Your task to perform on an android device: What is the capital of India? Image 0: 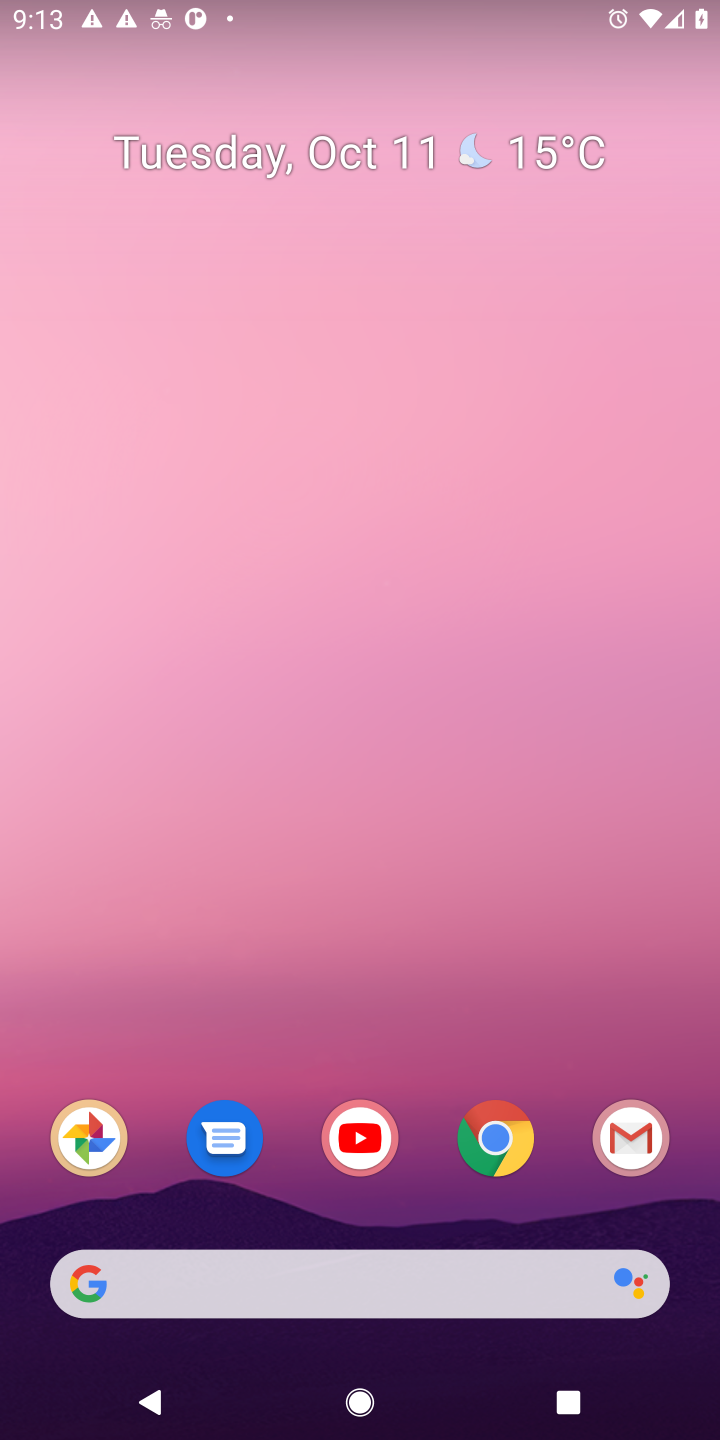
Step 0: click (388, 1287)
Your task to perform on an android device: What is the capital of India? Image 1: 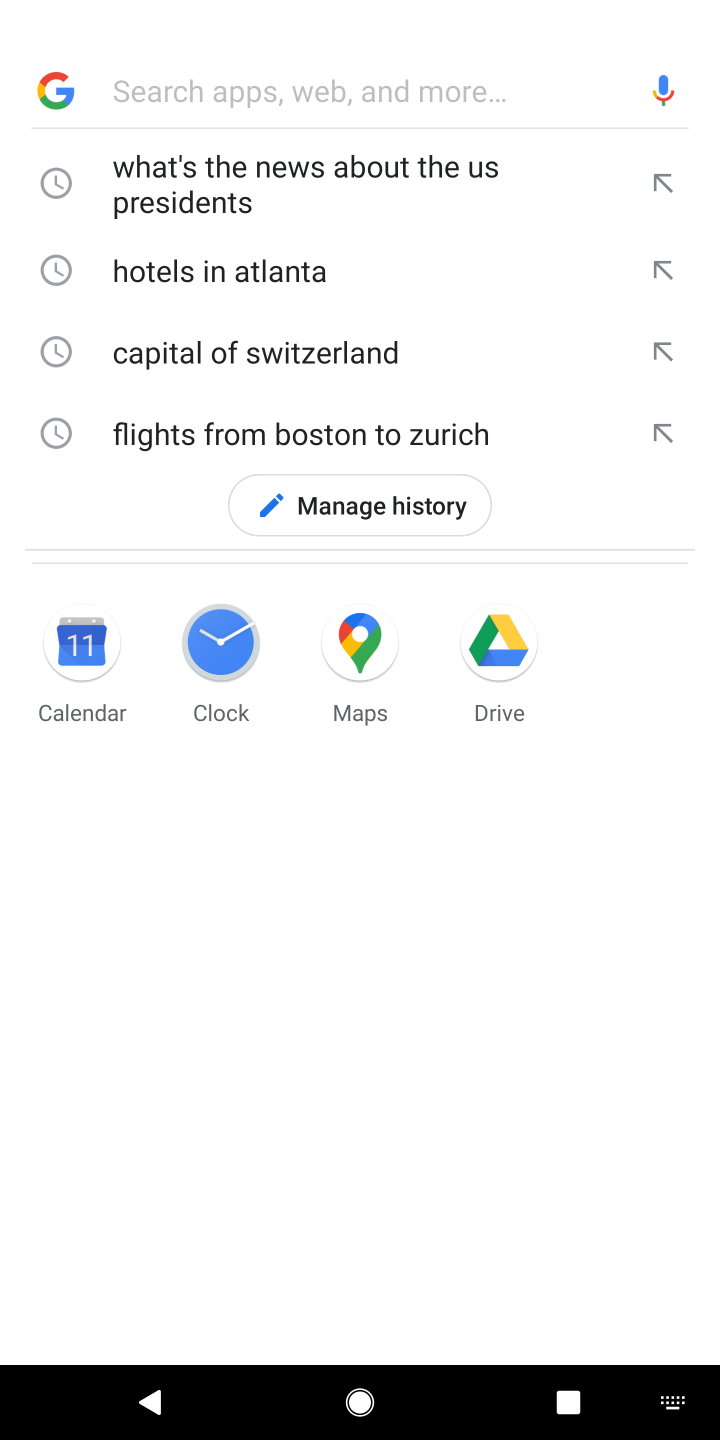
Step 1: type " capital of India?"
Your task to perform on an android device: What is the capital of India? Image 2: 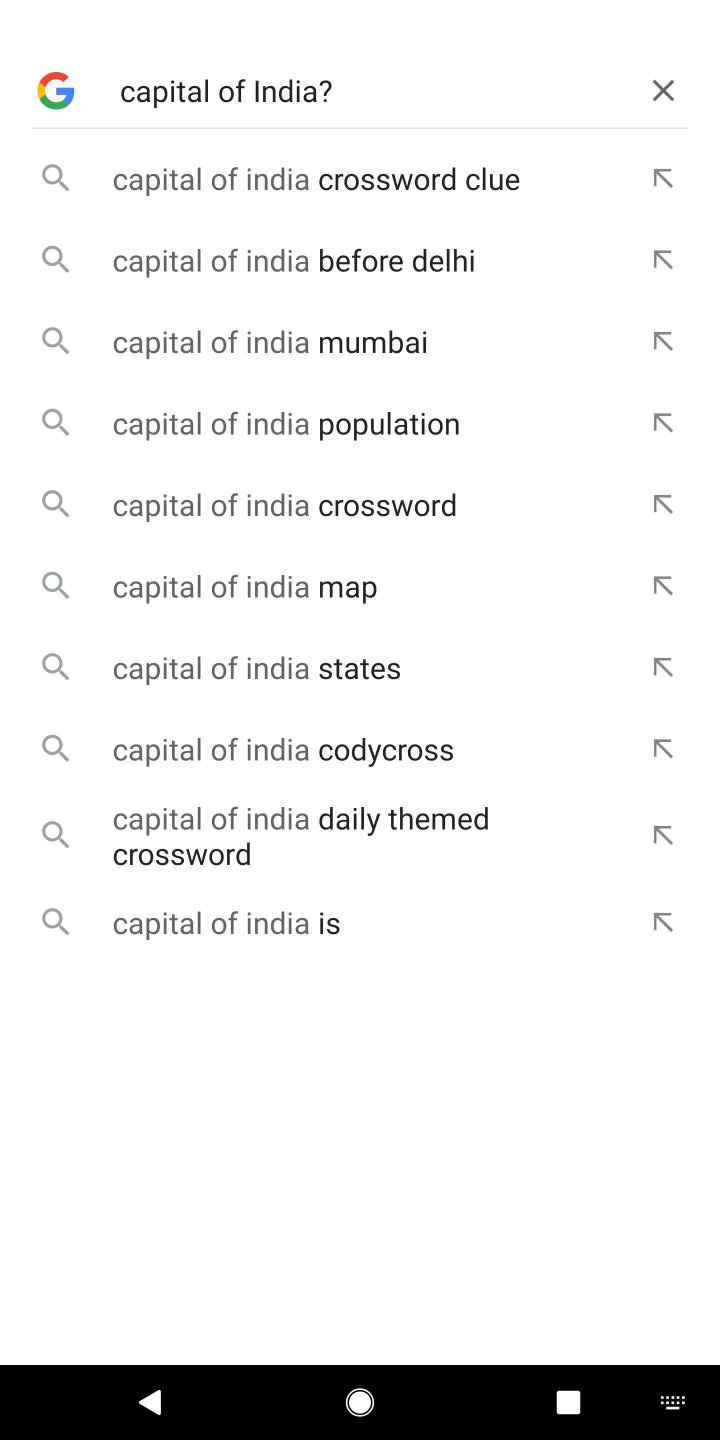
Step 2: click (249, 925)
Your task to perform on an android device: What is the capital of India? Image 3: 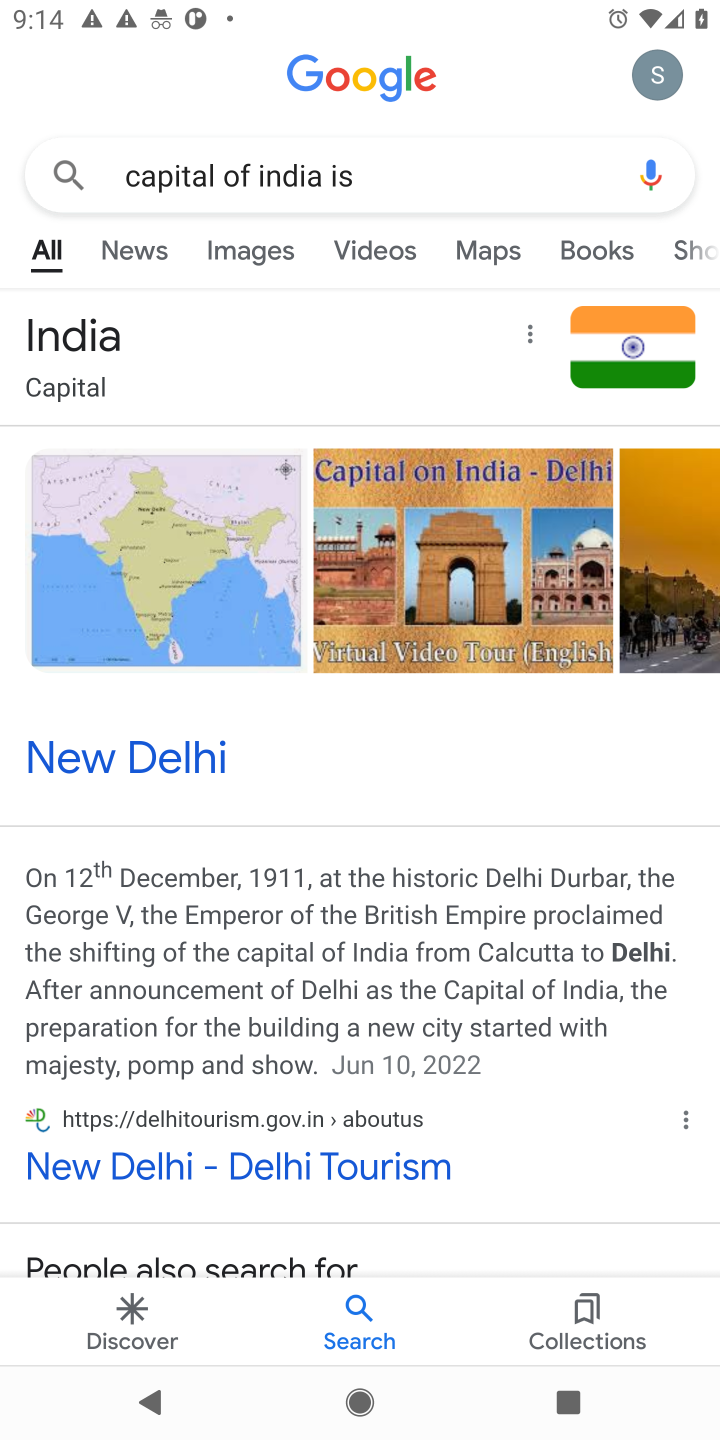
Step 3: task complete